Your task to perform on an android device: See recent photos Image 0: 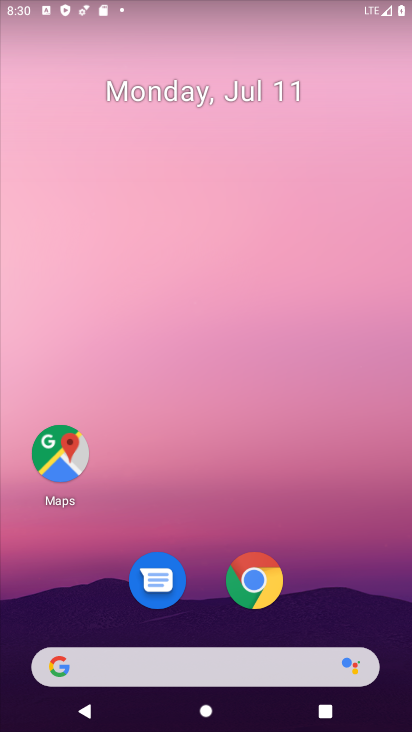
Step 0: drag from (326, 527) to (338, 21)
Your task to perform on an android device: See recent photos Image 1: 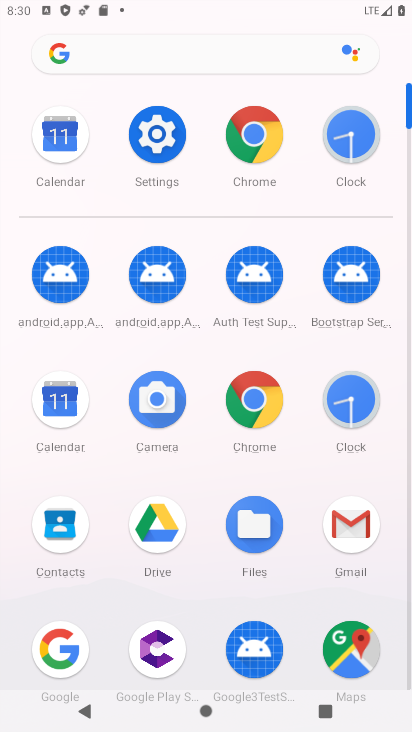
Step 1: drag from (290, 441) to (321, 175)
Your task to perform on an android device: See recent photos Image 2: 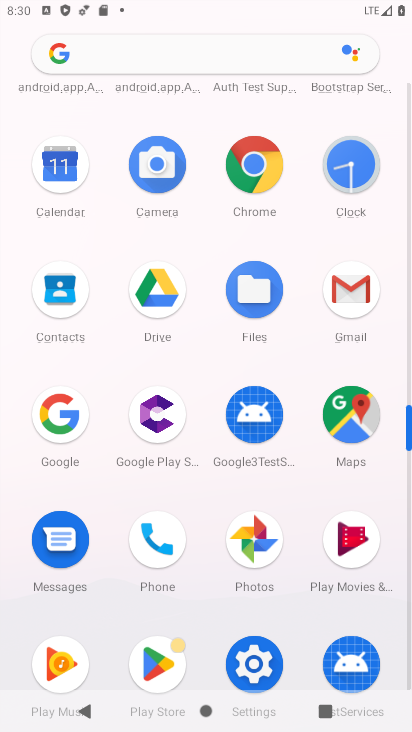
Step 2: click (266, 531)
Your task to perform on an android device: See recent photos Image 3: 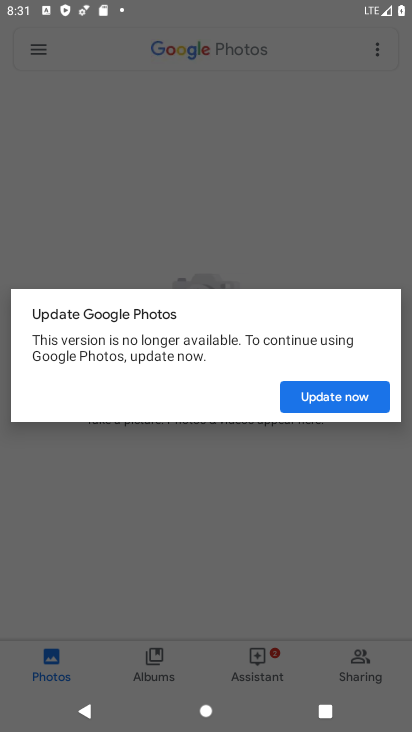
Step 3: click (370, 397)
Your task to perform on an android device: See recent photos Image 4: 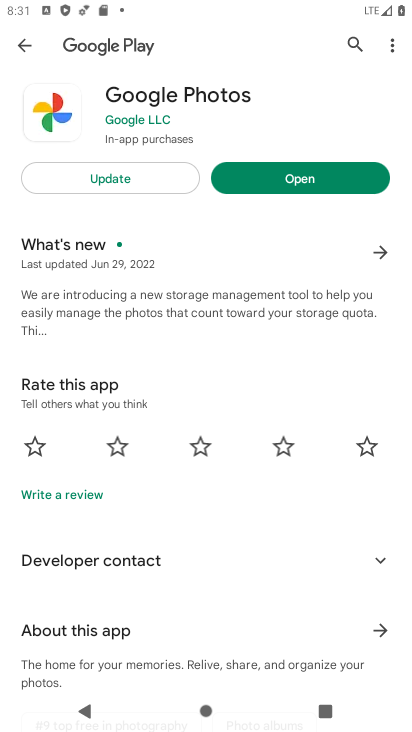
Step 4: click (335, 172)
Your task to perform on an android device: See recent photos Image 5: 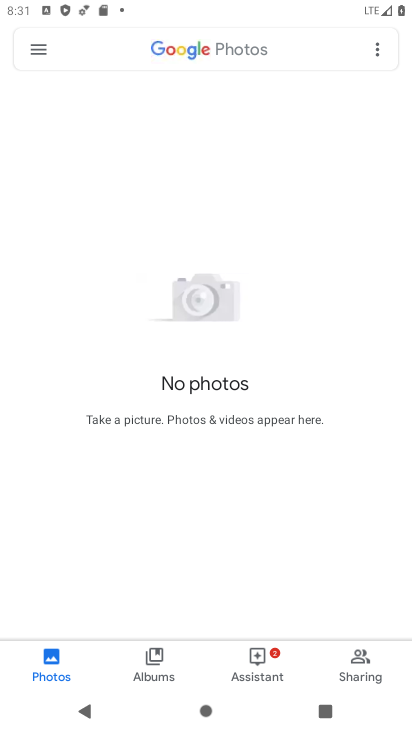
Step 5: click (266, 50)
Your task to perform on an android device: See recent photos Image 6: 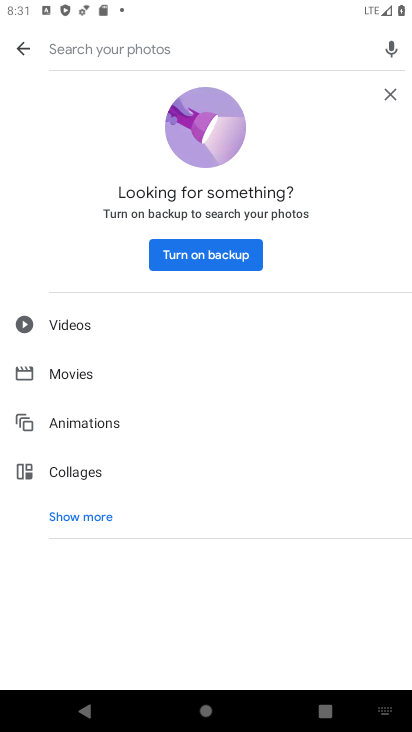
Step 6: click (220, 253)
Your task to perform on an android device: See recent photos Image 7: 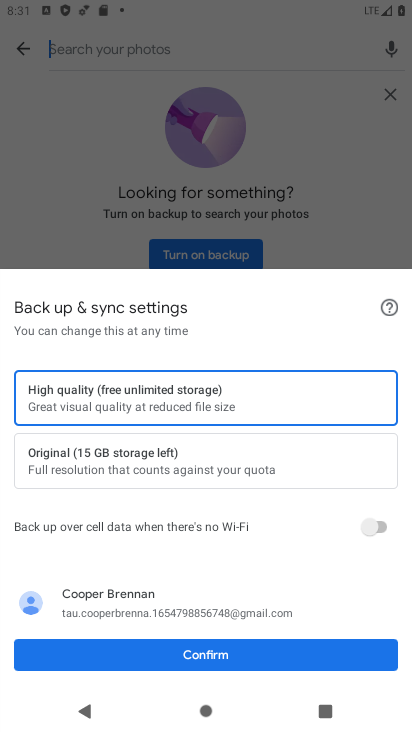
Step 7: click (217, 656)
Your task to perform on an android device: See recent photos Image 8: 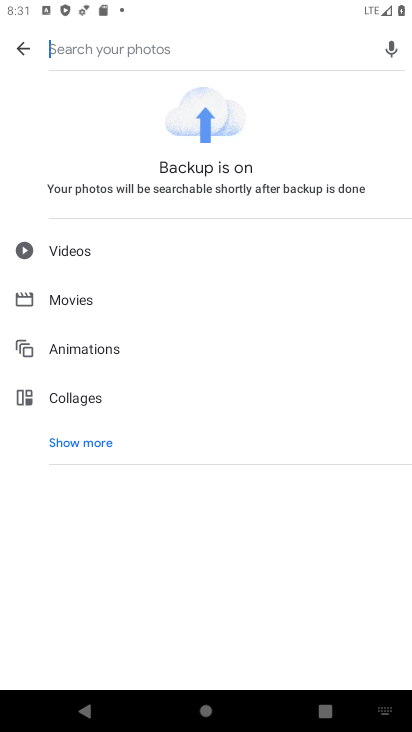
Step 8: click (84, 442)
Your task to perform on an android device: See recent photos Image 9: 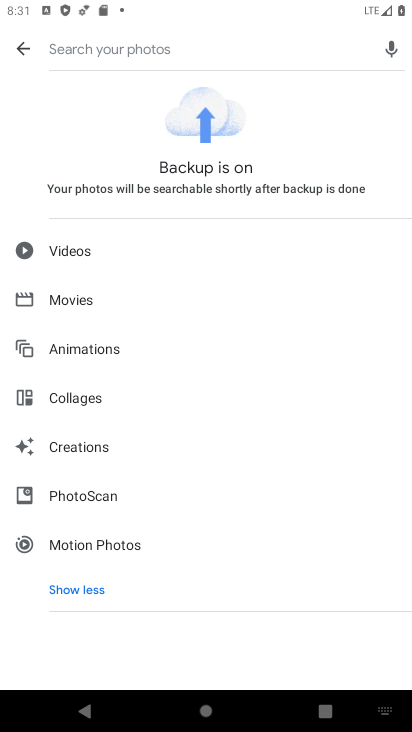
Step 9: type "recent photos"
Your task to perform on an android device: See recent photos Image 10: 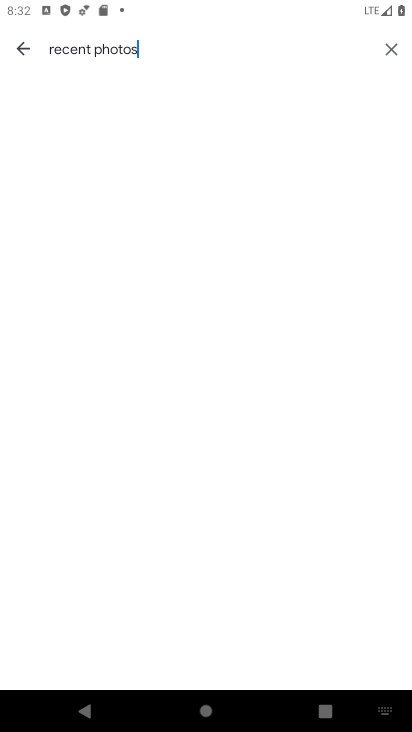
Step 10: task complete